Your task to perform on an android device: Open network settings Image 0: 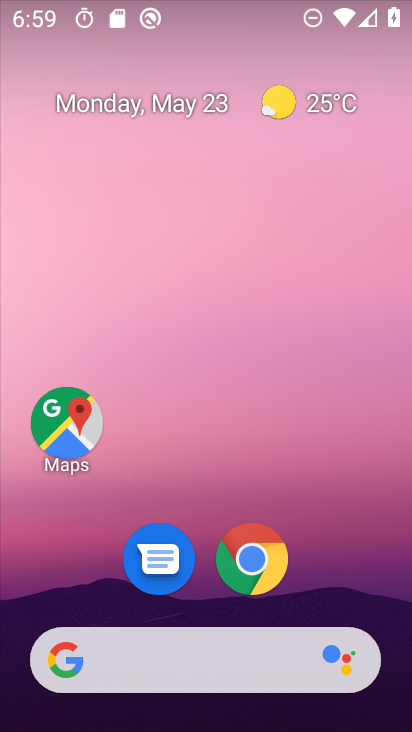
Step 0: drag from (389, 639) to (327, 87)
Your task to perform on an android device: Open network settings Image 1: 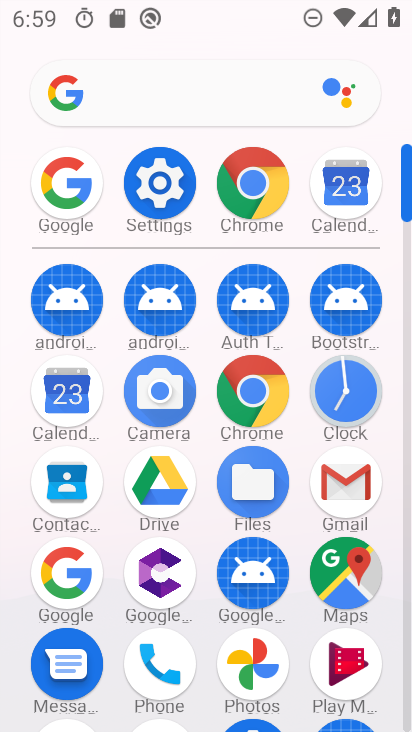
Step 1: click (155, 191)
Your task to perform on an android device: Open network settings Image 2: 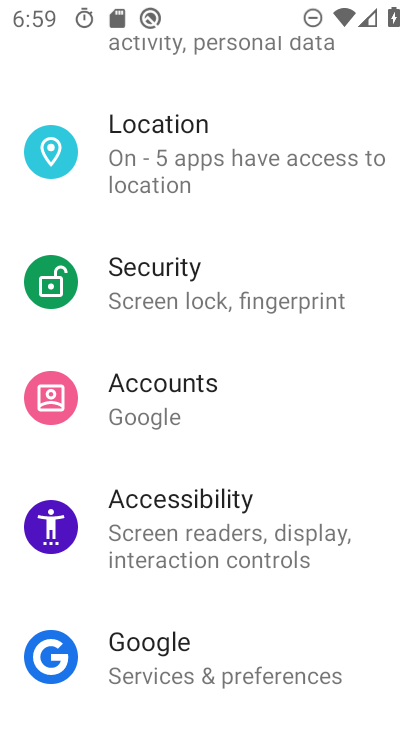
Step 2: drag from (155, 191) to (204, 672)
Your task to perform on an android device: Open network settings Image 3: 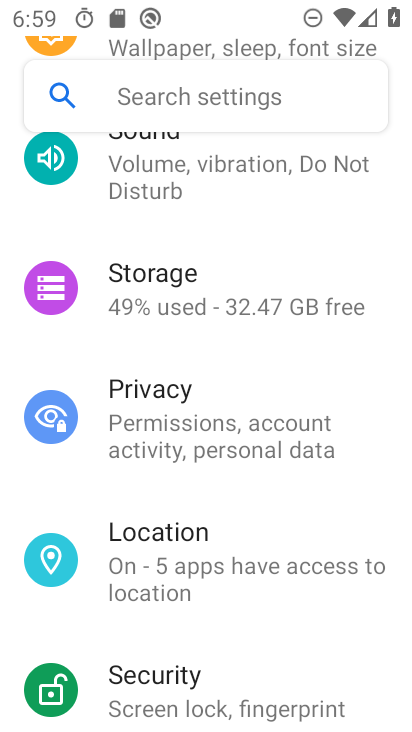
Step 3: drag from (227, 224) to (258, 663)
Your task to perform on an android device: Open network settings Image 4: 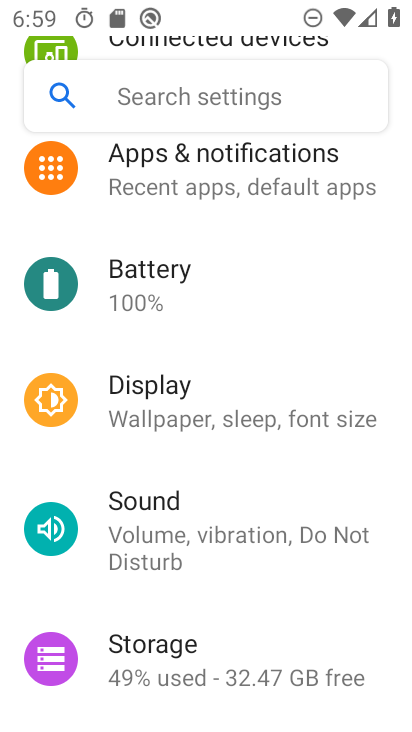
Step 4: drag from (238, 229) to (175, 634)
Your task to perform on an android device: Open network settings Image 5: 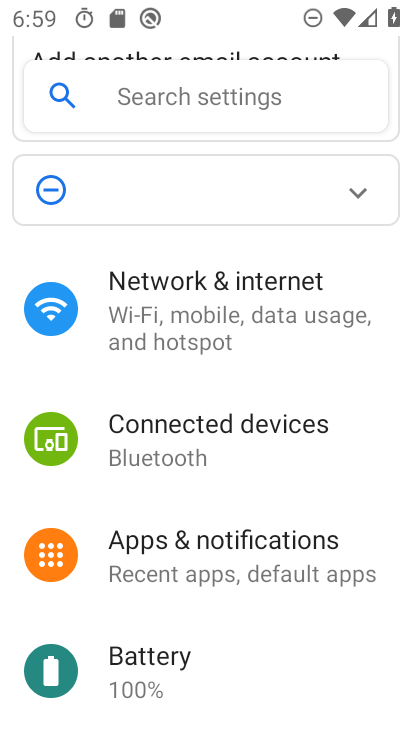
Step 5: click (154, 319)
Your task to perform on an android device: Open network settings Image 6: 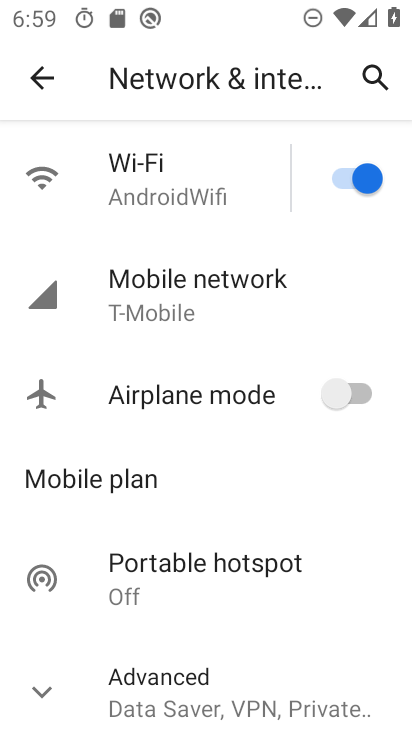
Step 6: task complete